Your task to perform on an android device: remove spam from my inbox in the gmail app Image 0: 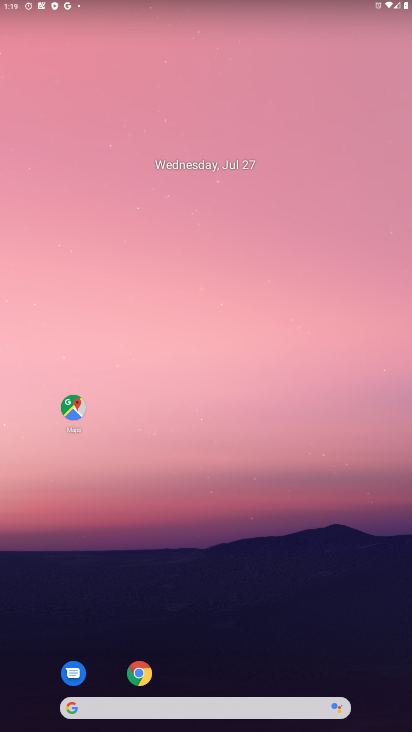
Step 0: drag from (294, 694) to (302, 68)
Your task to perform on an android device: remove spam from my inbox in the gmail app Image 1: 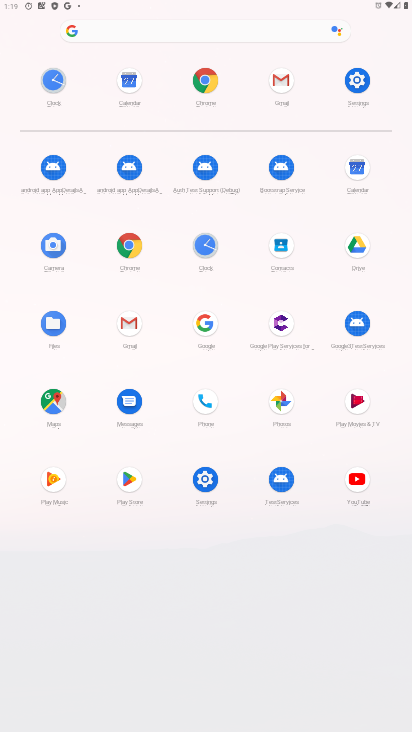
Step 1: click (280, 81)
Your task to perform on an android device: remove spam from my inbox in the gmail app Image 2: 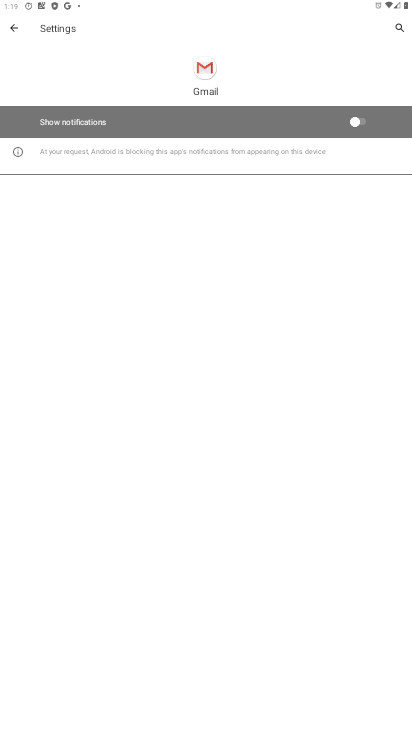
Step 2: click (12, 24)
Your task to perform on an android device: remove spam from my inbox in the gmail app Image 3: 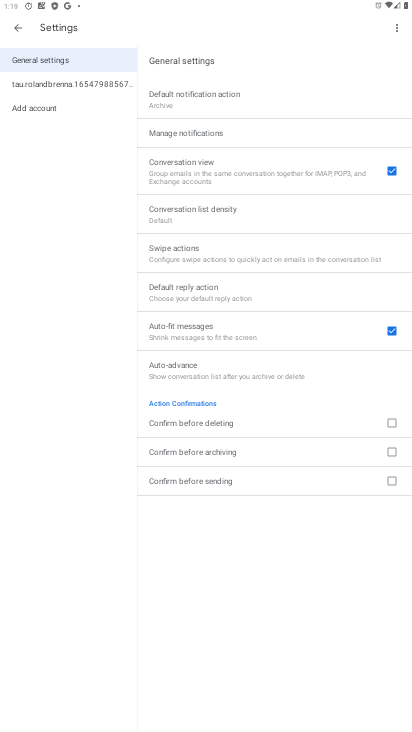
Step 3: click (14, 29)
Your task to perform on an android device: remove spam from my inbox in the gmail app Image 4: 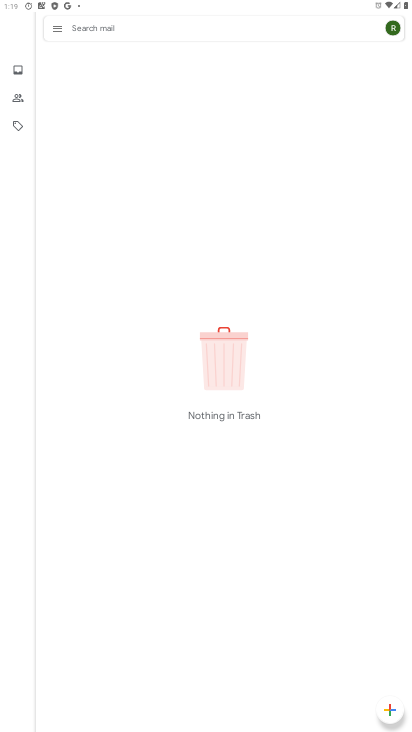
Step 4: click (61, 28)
Your task to perform on an android device: remove spam from my inbox in the gmail app Image 5: 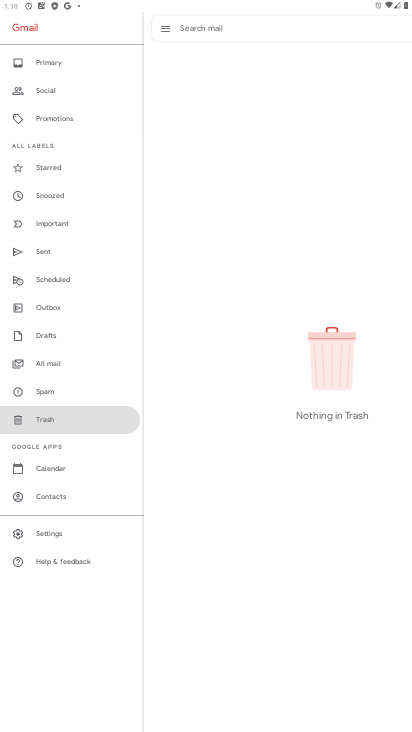
Step 5: click (42, 397)
Your task to perform on an android device: remove spam from my inbox in the gmail app Image 6: 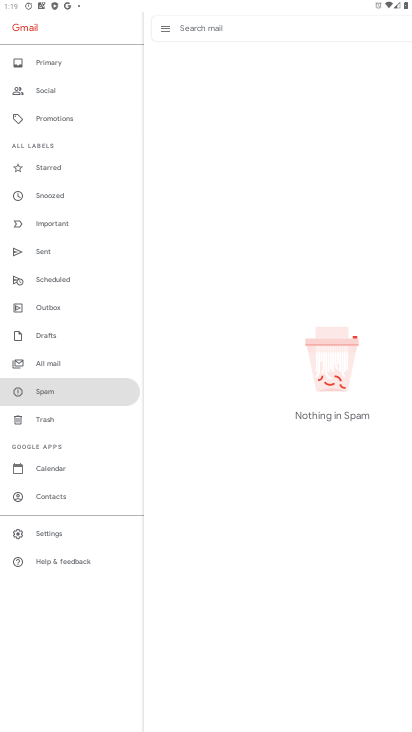
Step 6: task complete